Your task to perform on an android device: toggle improve location accuracy Image 0: 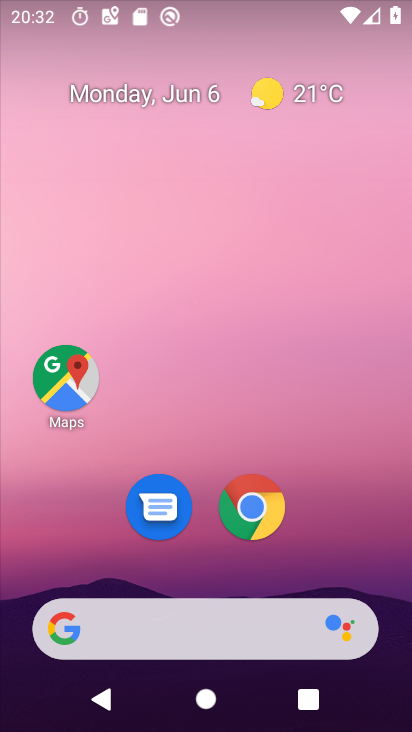
Step 0: press home button
Your task to perform on an android device: toggle improve location accuracy Image 1: 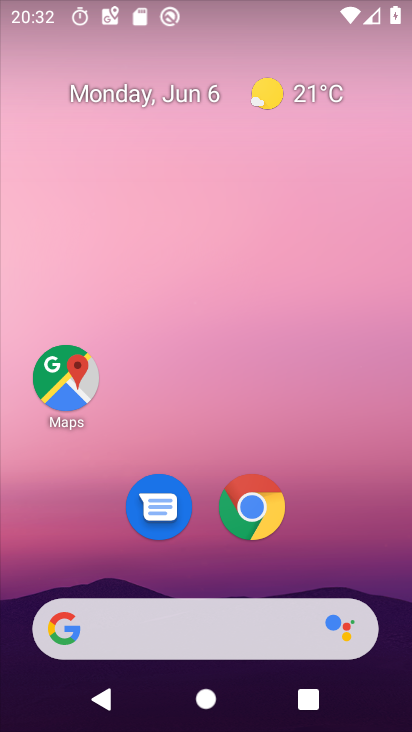
Step 1: click (269, 67)
Your task to perform on an android device: toggle improve location accuracy Image 2: 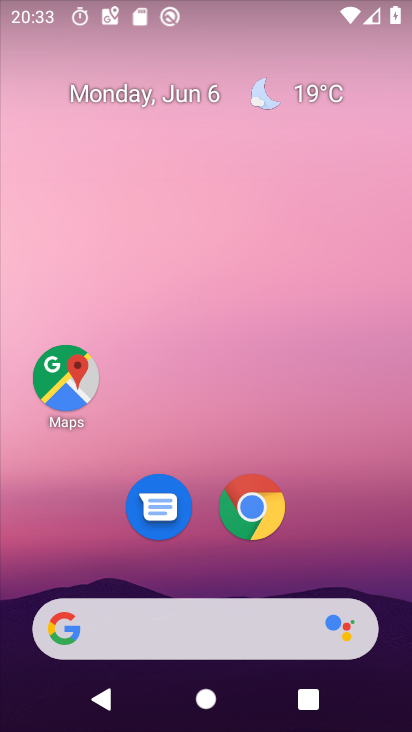
Step 2: drag from (376, 543) to (308, 0)
Your task to perform on an android device: toggle improve location accuracy Image 3: 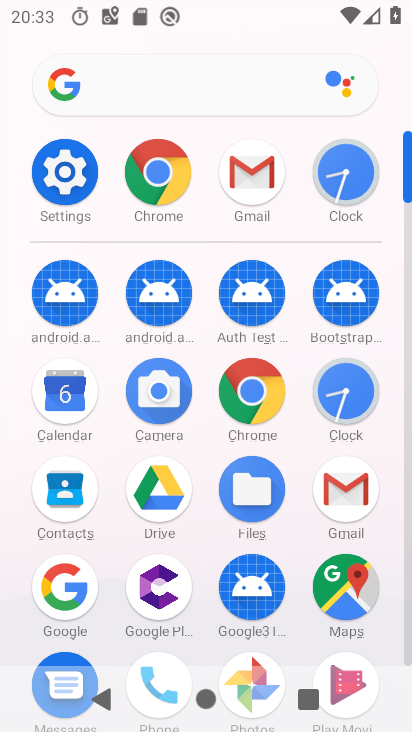
Step 3: click (58, 159)
Your task to perform on an android device: toggle improve location accuracy Image 4: 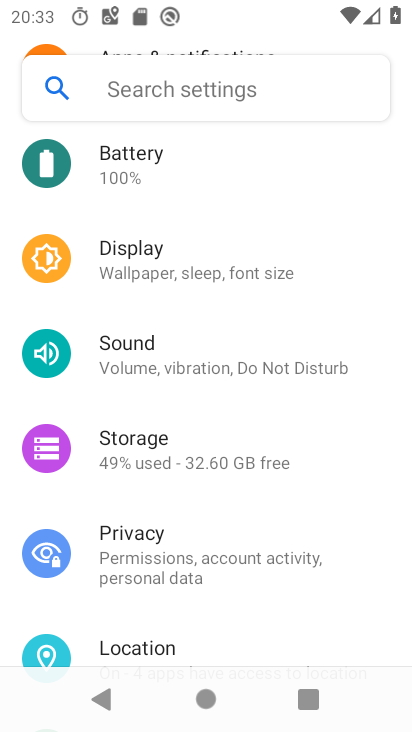
Step 4: drag from (182, 477) to (314, 199)
Your task to perform on an android device: toggle improve location accuracy Image 5: 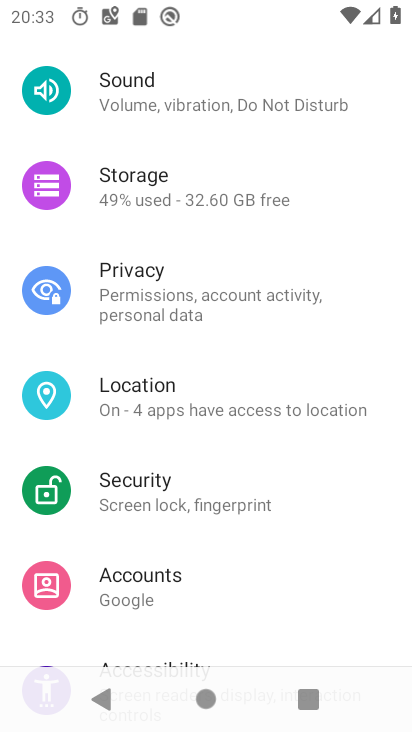
Step 5: drag from (244, 517) to (212, 189)
Your task to perform on an android device: toggle improve location accuracy Image 6: 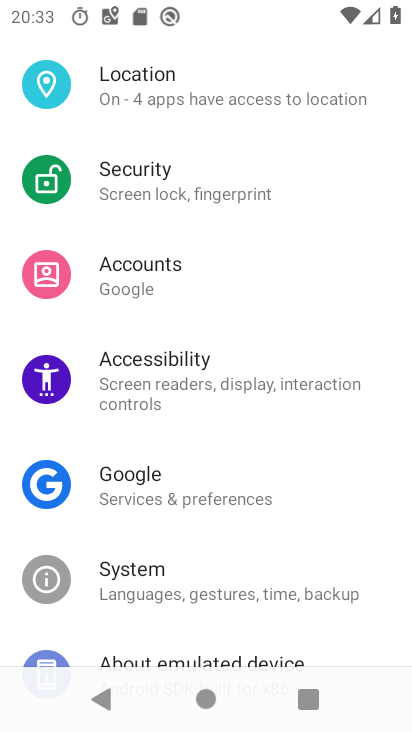
Step 6: drag from (225, 545) to (115, 145)
Your task to perform on an android device: toggle improve location accuracy Image 7: 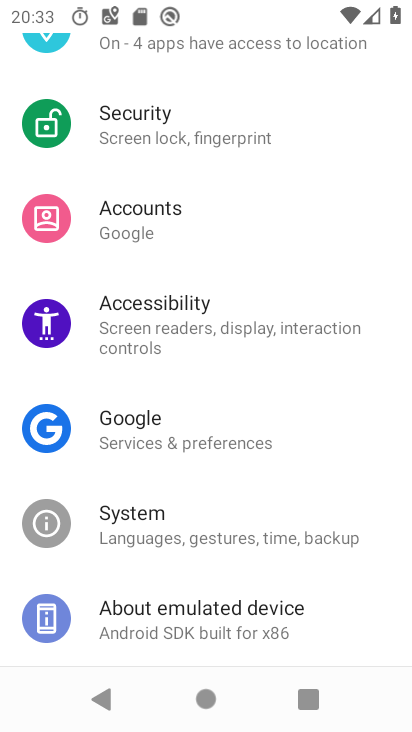
Step 7: click (123, 603)
Your task to perform on an android device: toggle improve location accuracy Image 8: 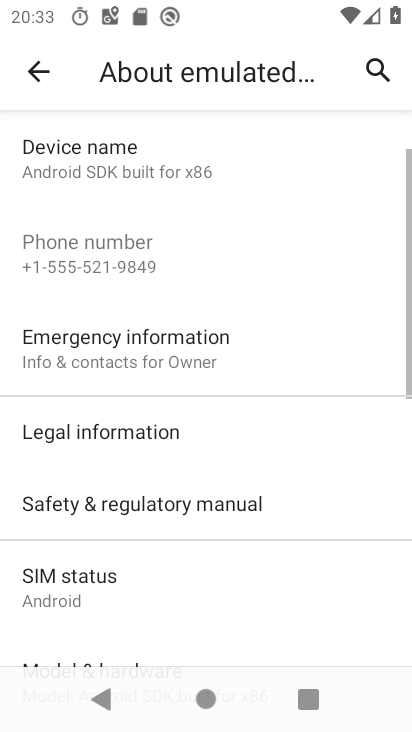
Step 8: drag from (174, 564) to (286, 198)
Your task to perform on an android device: toggle improve location accuracy Image 9: 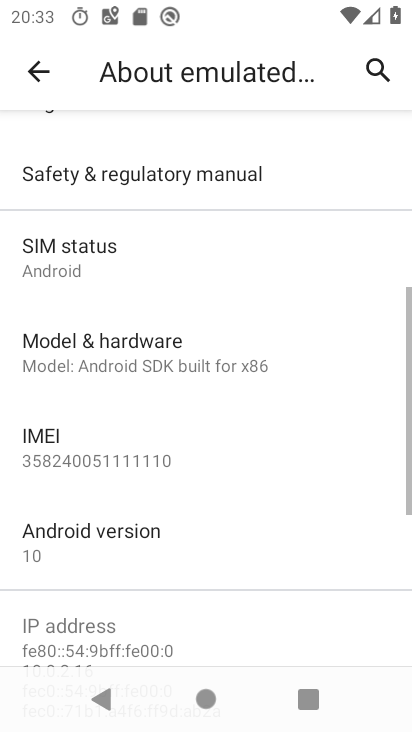
Step 9: drag from (143, 511) to (119, 267)
Your task to perform on an android device: toggle improve location accuracy Image 10: 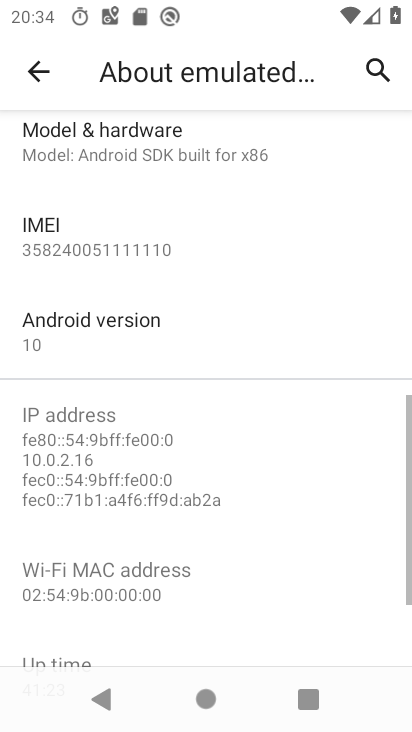
Step 10: click (121, 317)
Your task to perform on an android device: toggle improve location accuracy Image 11: 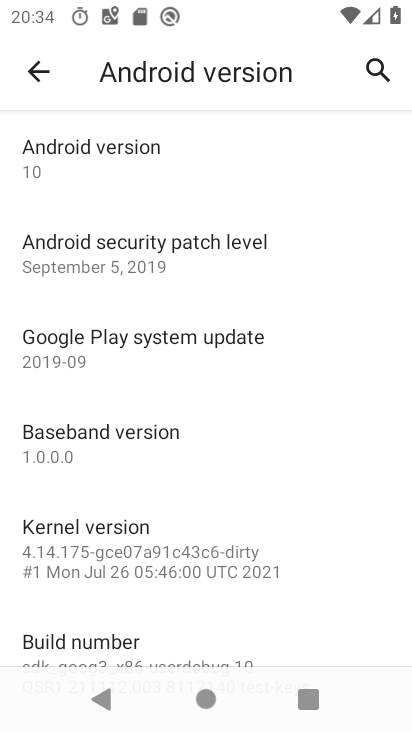
Step 11: task complete